Your task to perform on an android device: change the clock style Image 0: 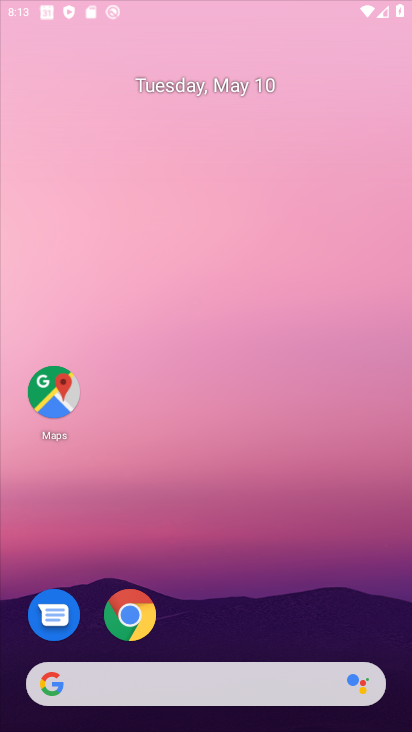
Step 0: drag from (254, 451) to (241, 279)
Your task to perform on an android device: change the clock style Image 1: 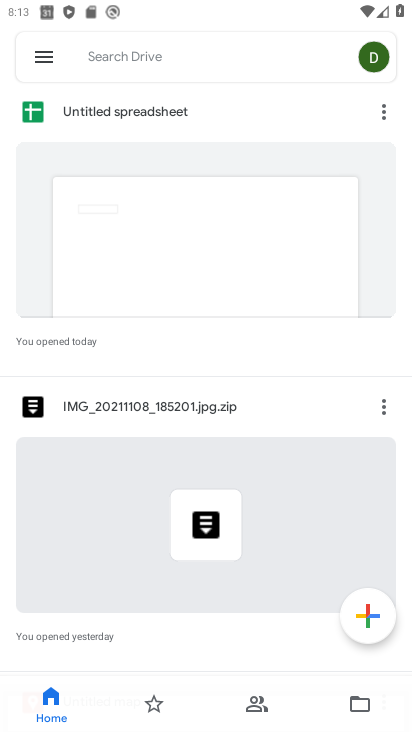
Step 1: press home button
Your task to perform on an android device: change the clock style Image 2: 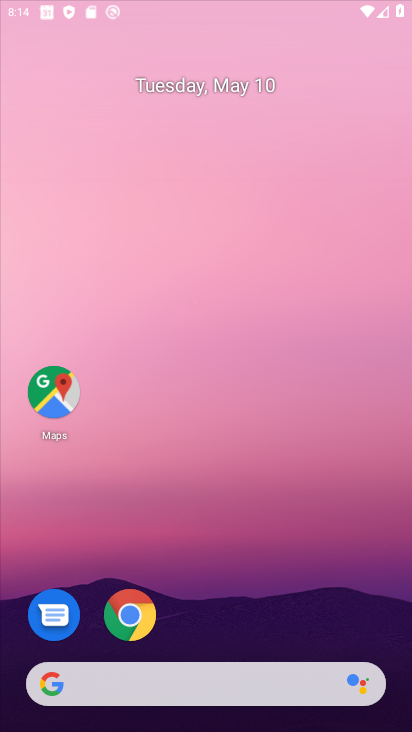
Step 2: drag from (237, 491) to (268, 125)
Your task to perform on an android device: change the clock style Image 3: 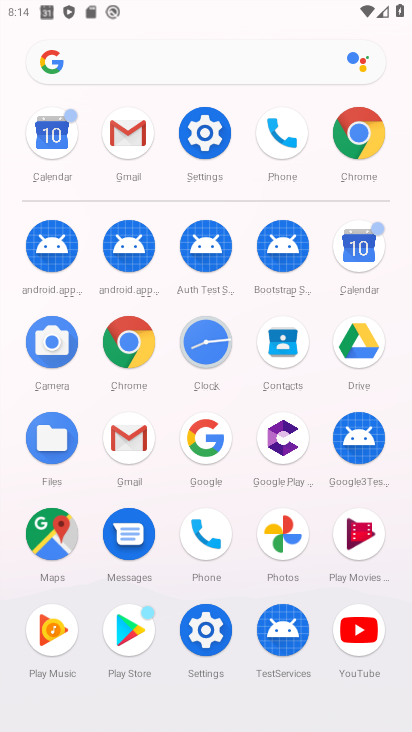
Step 3: click (211, 346)
Your task to perform on an android device: change the clock style Image 4: 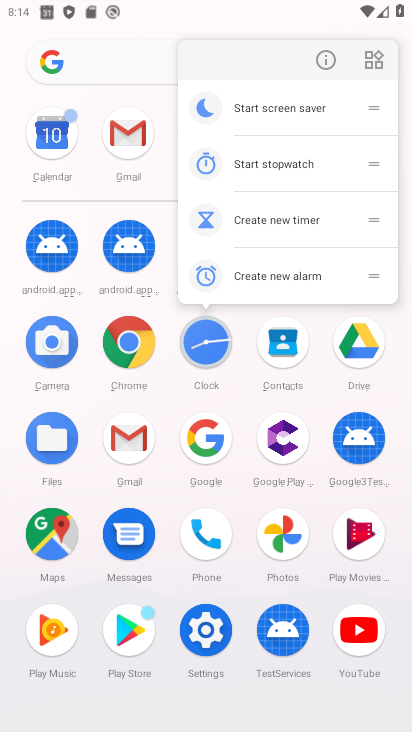
Step 4: click (331, 69)
Your task to perform on an android device: change the clock style Image 5: 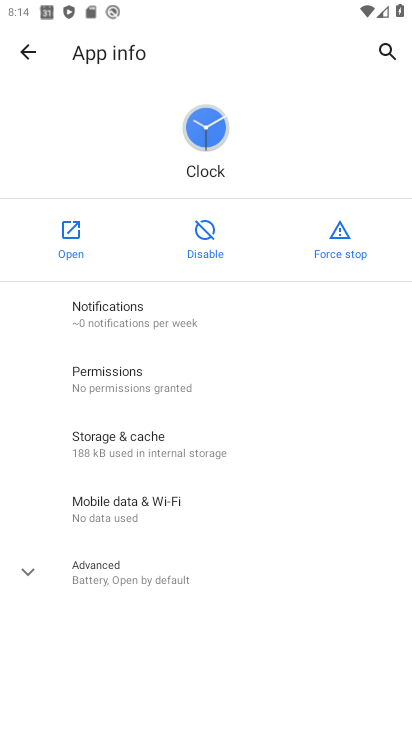
Step 5: click (87, 254)
Your task to perform on an android device: change the clock style Image 6: 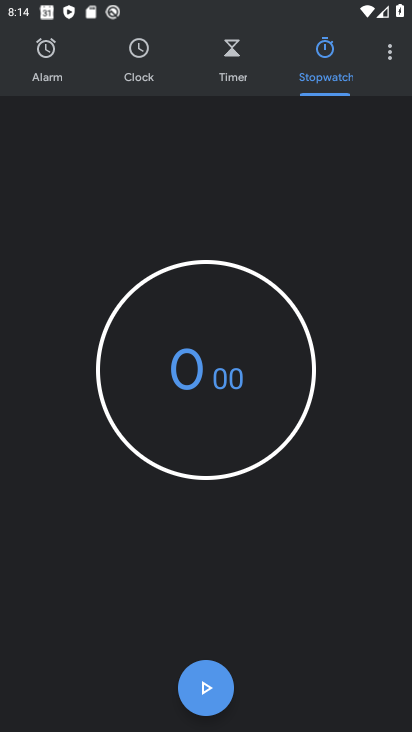
Step 6: click (398, 49)
Your task to perform on an android device: change the clock style Image 7: 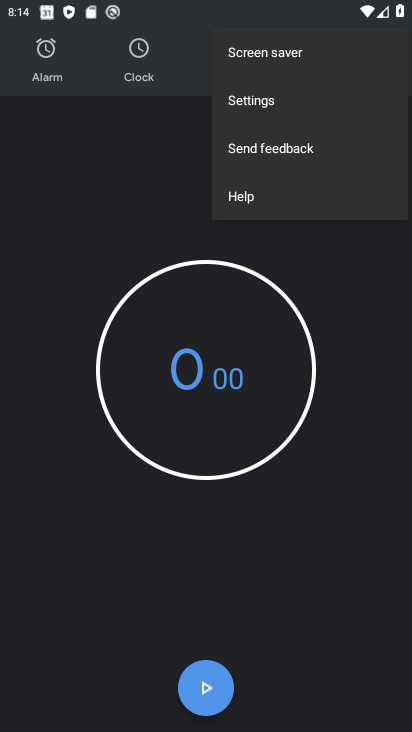
Step 7: click (290, 98)
Your task to perform on an android device: change the clock style Image 8: 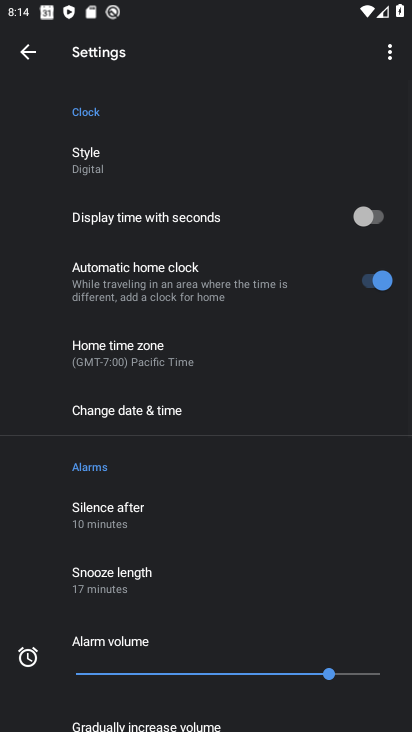
Step 8: click (190, 160)
Your task to perform on an android device: change the clock style Image 9: 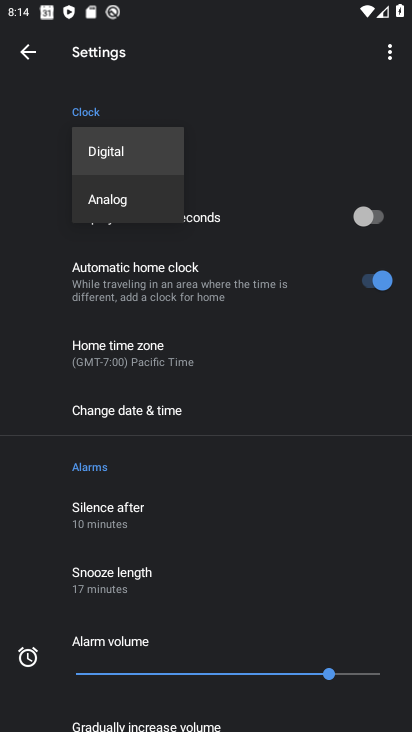
Step 9: click (145, 192)
Your task to perform on an android device: change the clock style Image 10: 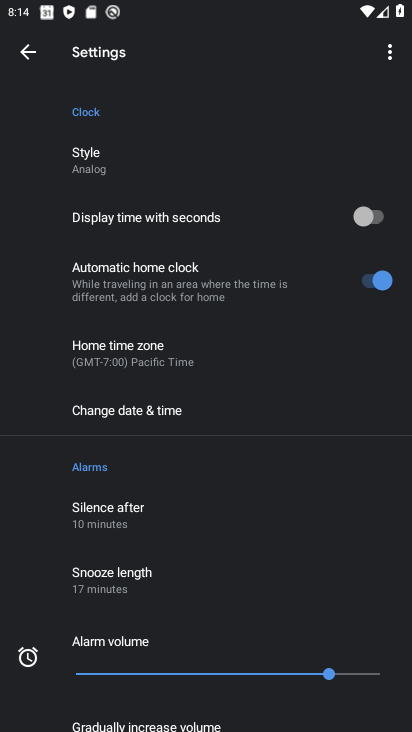
Step 10: task complete